Your task to perform on an android device: What is the news today? Image 0: 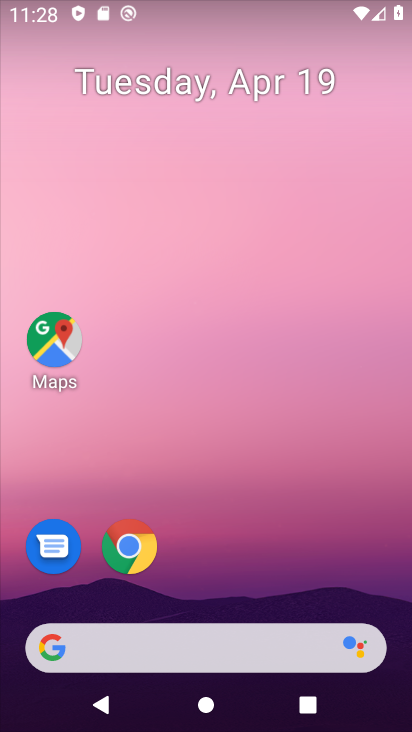
Step 0: drag from (388, 654) to (343, 1)
Your task to perform on an android device: What is the news today? Image 1: 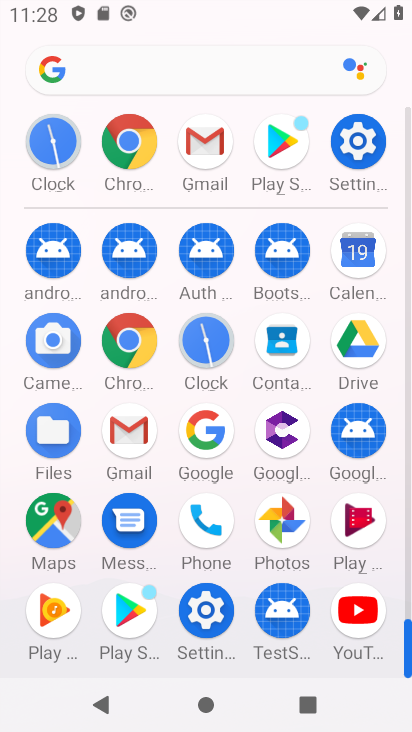
Step 1: drag from (4, 634) to (8, 372)
Your task to perform on an android device: What is the news today? Image 2: 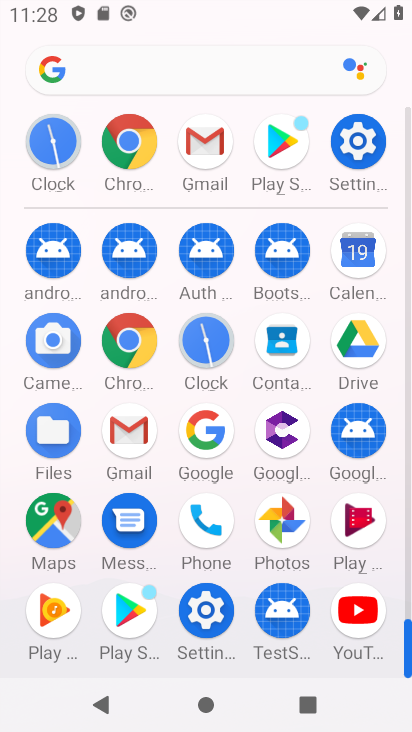
Step 2: click (191, 69)
Your task to perform on an android device: What is the news today? Image 3: 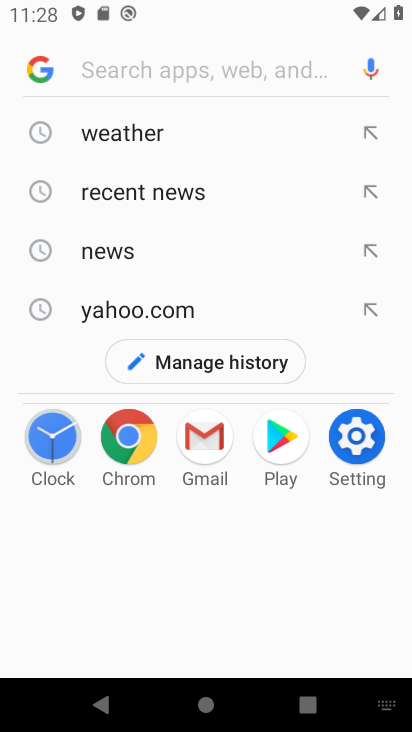
Step 3: click (118, 256)
Your task to perform on an android device: What is the news today? Image 4: 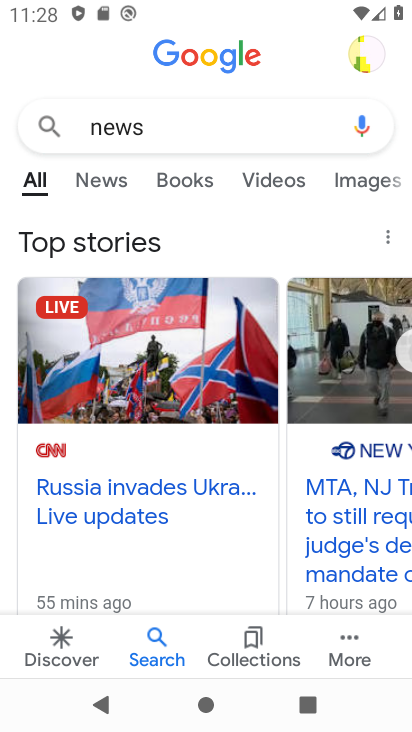
Step 4: click (100, 178)
Your task to perform on an android device: What is the news today? Image 5: 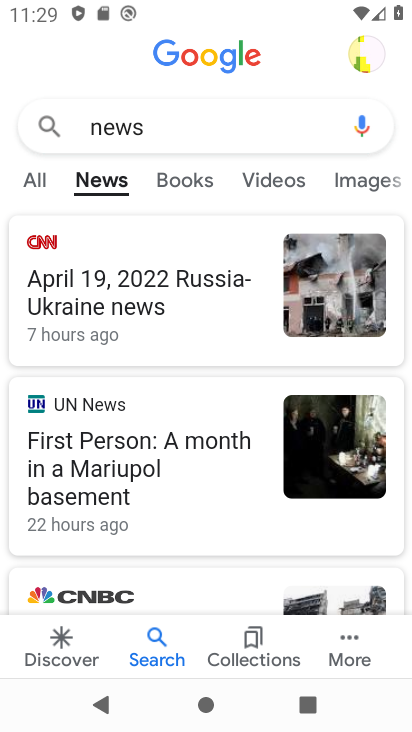
Step 5: task complete